Your task to perform on an android device: When is my next appointment? Image 0: 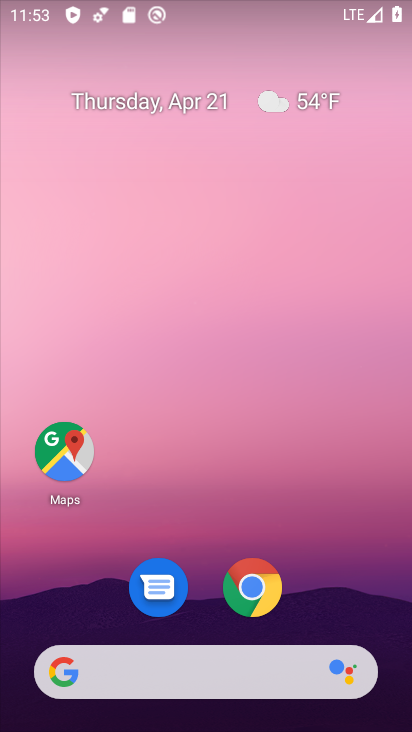
Step 0: drag from (188, 580) to (201, 239)
Your task to perform on an android device: When is my next appointment? Image 1: 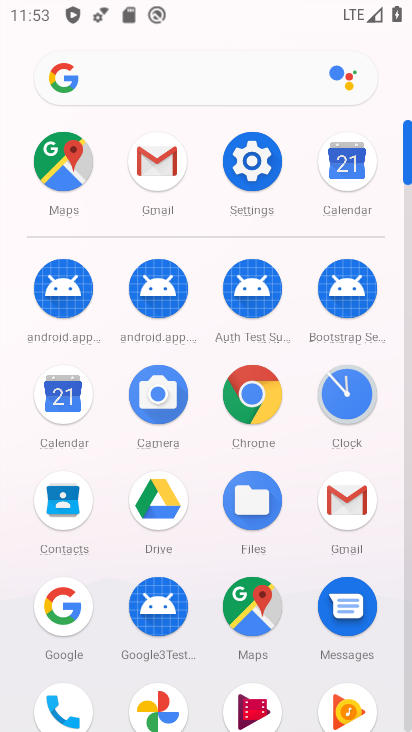
Step 1: click (52, 394)
Your task to perform on an android device: When is my next appointment? Image 2: 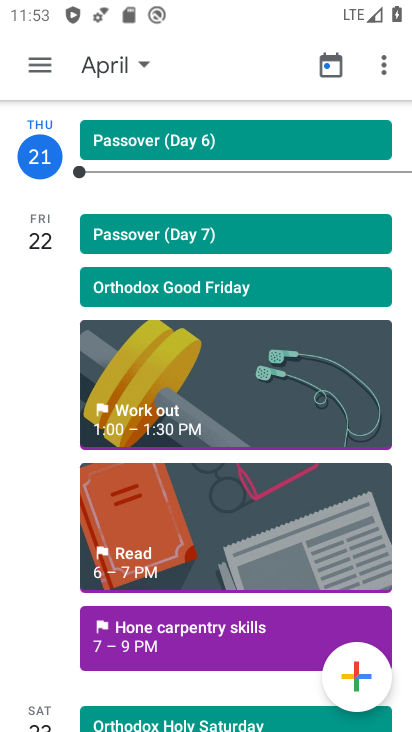
Step 2: task complete